Your task to perform on an android device: empty trash in the gmail app Image 0: 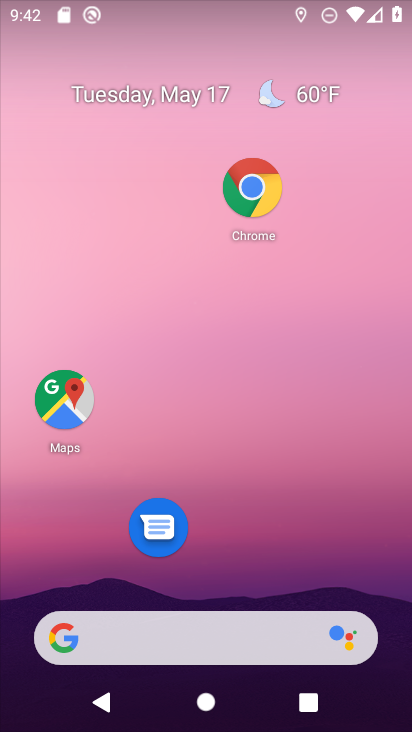
Step 0: drag from (351, 578) to (317, 12)
Your task to perform on an android device: empty trash in the gmail app Image 1: 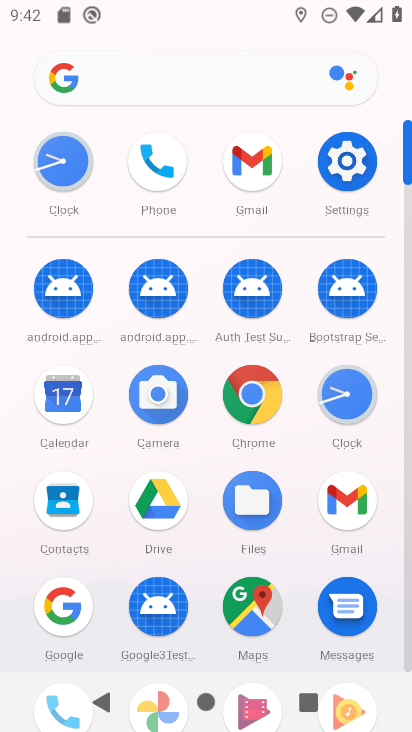
Step 1: click (239, 152)
Your task to perform on an android device: empty trash in the gmail app Image 2: 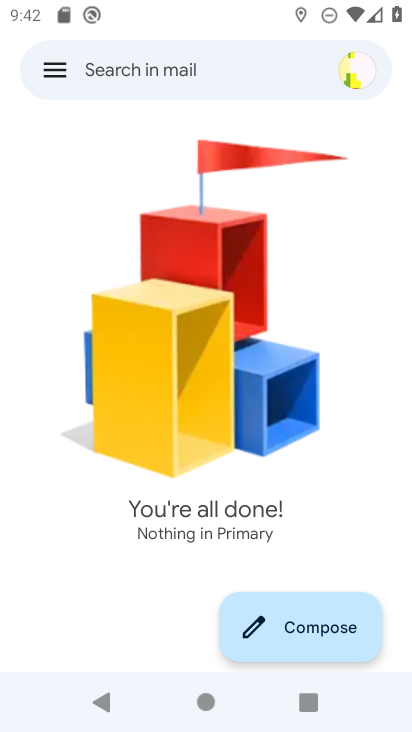
Step 2: click (68, 59)
Your task to perform on an android device: empty trash in the gmail app Image 3: 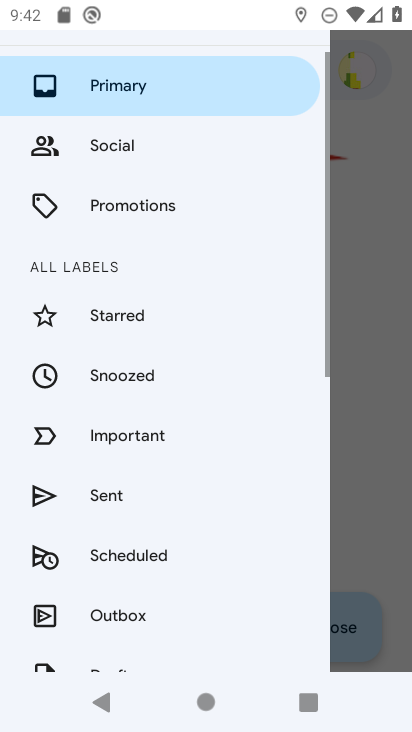
Step 3: drag from (102, 562) to (175, 247)
Your task to perform on an android device: empty trash in the gmail app Image 4: 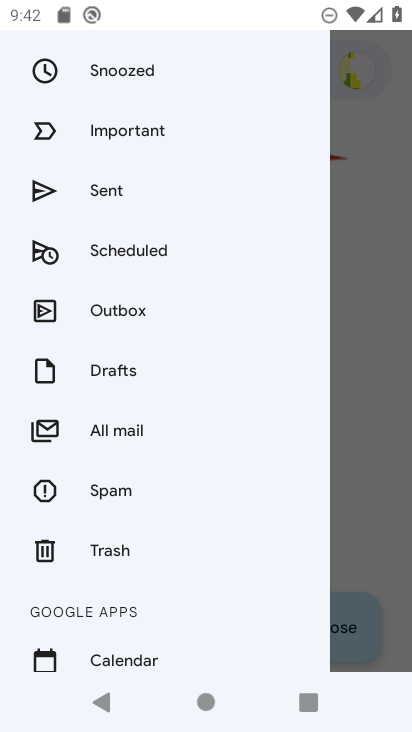
Step 4: click (120, 546)
Your task to perform on an android device: empty trash in the gmail app Image 5: 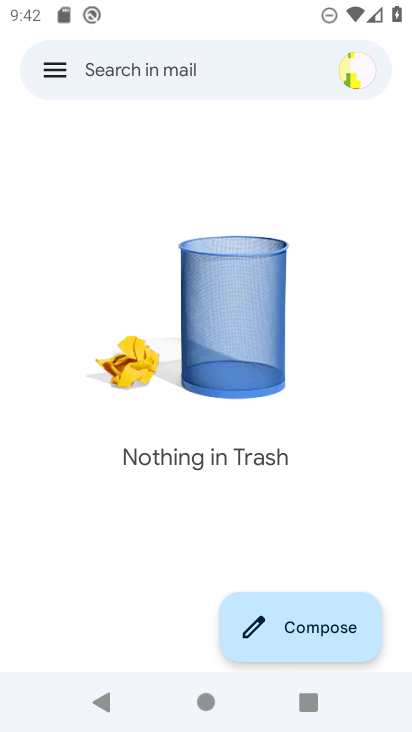
Step 5: task complete